Your task to perform on an android device: Open Chrome and go to settings Image 0: 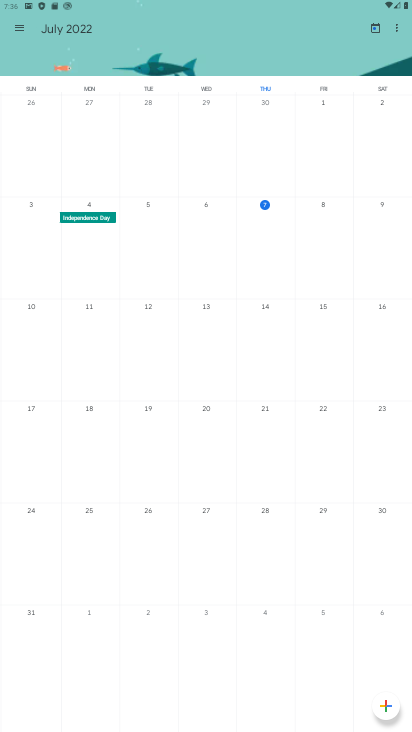
Step 0: press home button
Your task to perform on an android device: Open Chrome and go to settings Image 1: 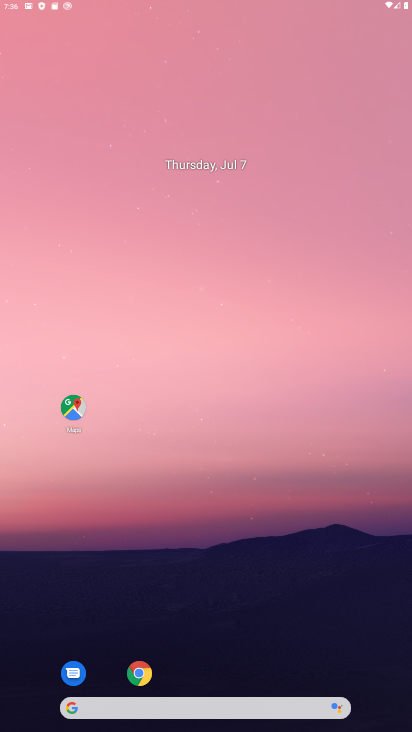
Step 1: click (241, 641)
Your task to perform on an android device: Open Chrome and go to settings Image 2: 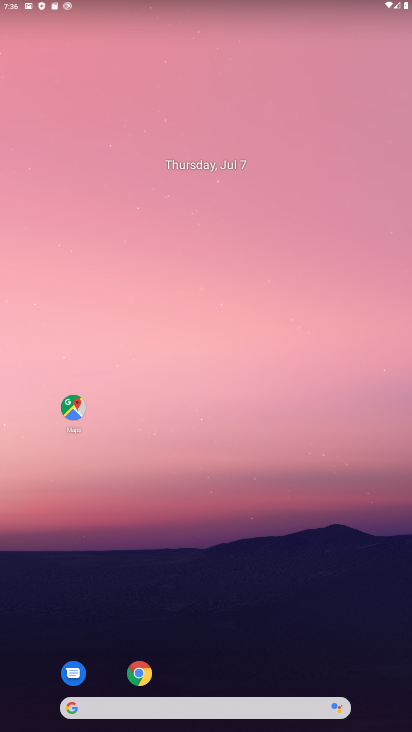
Step 2: click (136, 672)
Your task to perform on an android device: Open Chrome and go to settings Image 3: 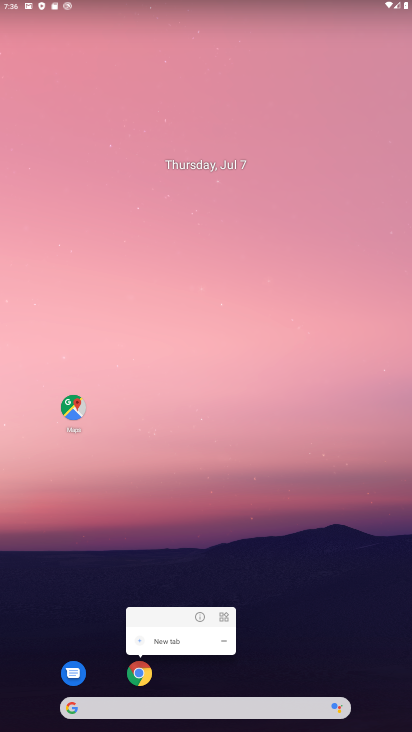
Step 3: click (140, 674)
Your task to perform on an android device: Open Chrome and go to settings Image 4: 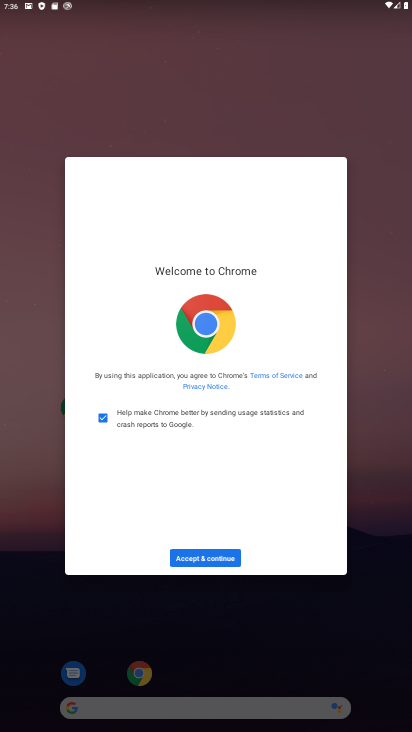
Step 4: click (232, 556)
Your task to perform on an android device: Open Chrome and go to settings Image 5: 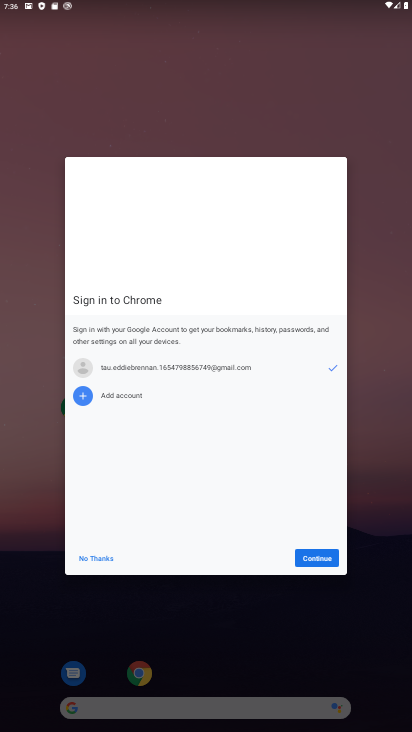
Step 5: click (319, 550)
Your task to perform on an android device: Open Chrome and go to settings Image 6: 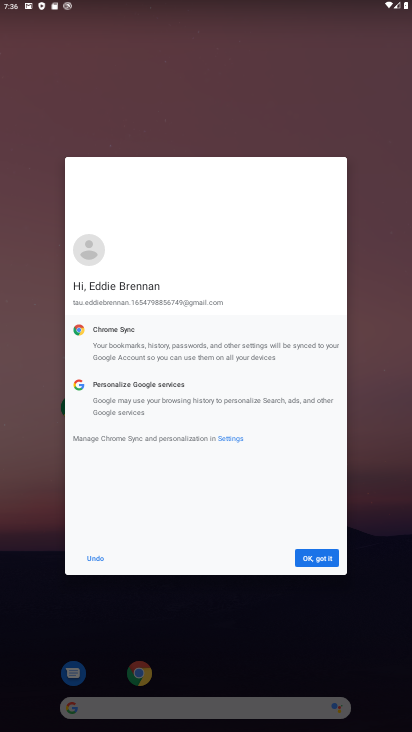
Step 6: click (319, 550)
Your task to perform on an android device: Open Chrome and go to settings Image 7: 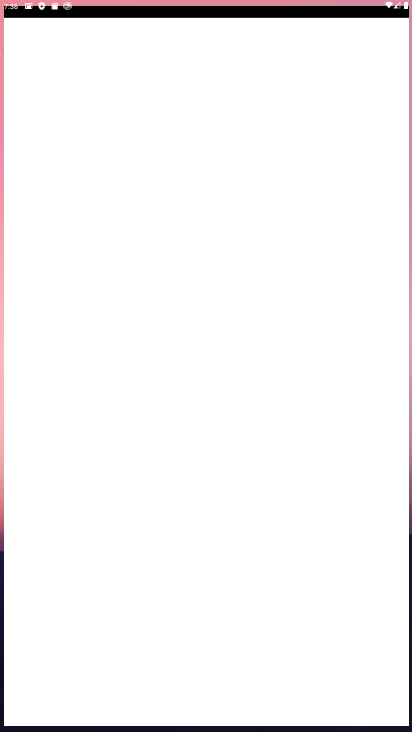
Step 7: click (319, 550)
Your task to perform on an android device: Open Chrome and go to settings Image 8: 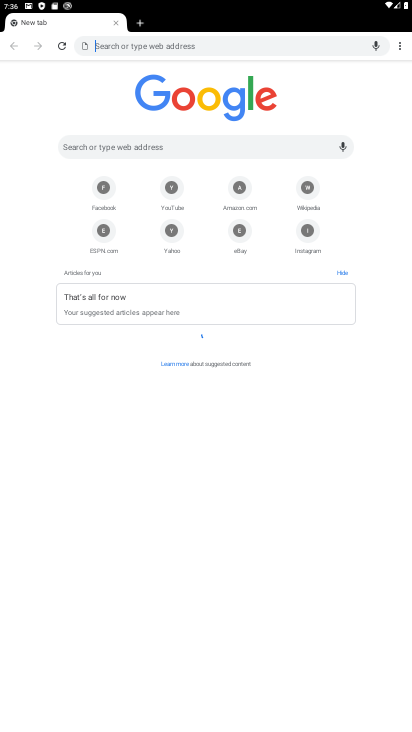
Step 8: click (394, 42)
Your task to perform on an android device: Open Chrome and go to settings Image 9: 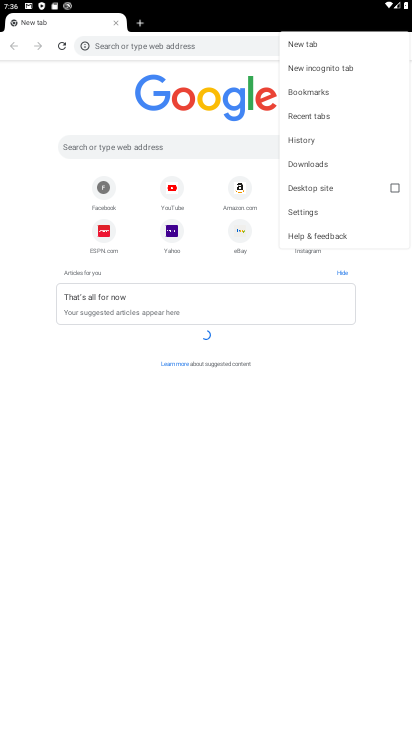
Step 9: click (320, 203)
Your task to perform on an android device: Open Chrome and go to settings Image 10: 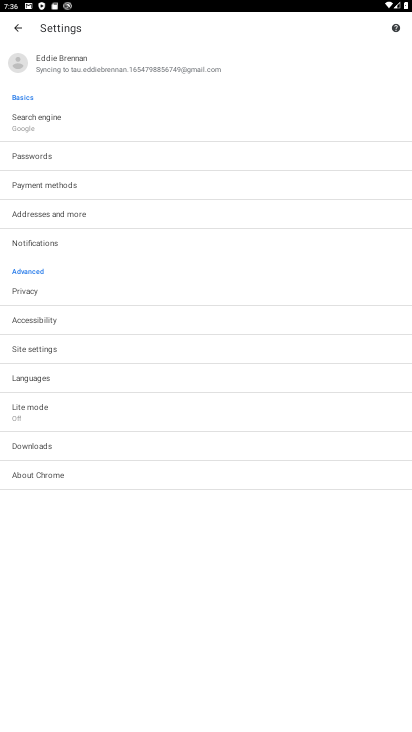
Step 10: task complete